Your task to perform on an android device: find photos in the google photos app Image 0: 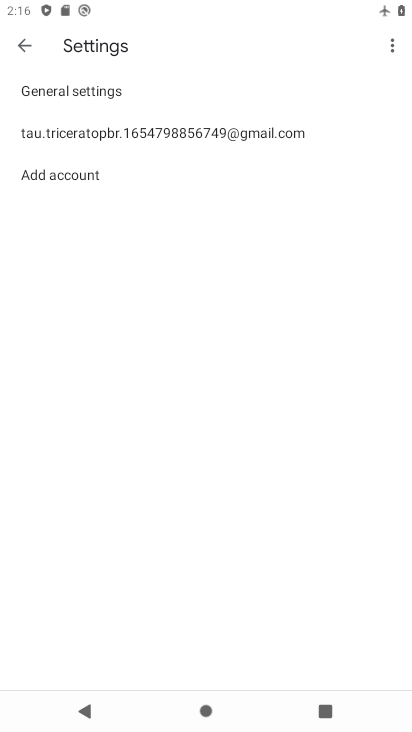
Step 0: press back button
Your task to perform on an android device: find photos in the google photos app Image 1: 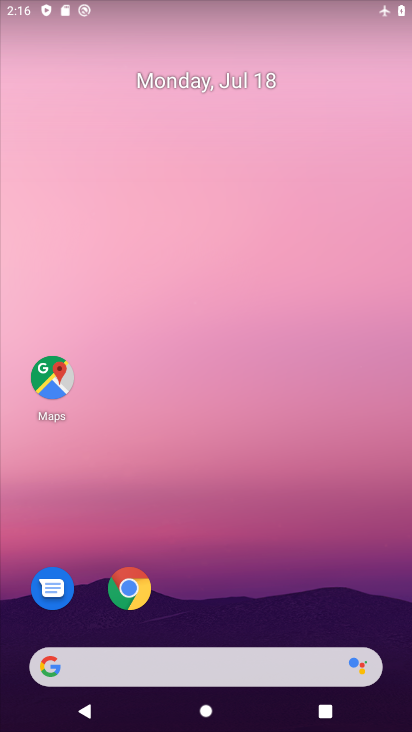
Step 1: drag from (184, 500) to (212, 0)
Your task to perform on an android device: find photos in the google photos app Image 2: 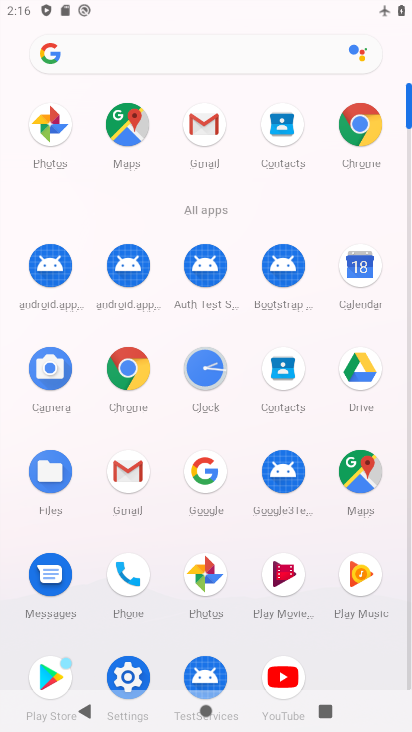
Step 2: click (201, 573)
Your task to perform on an android device: find photos in the google photos app Image 3: 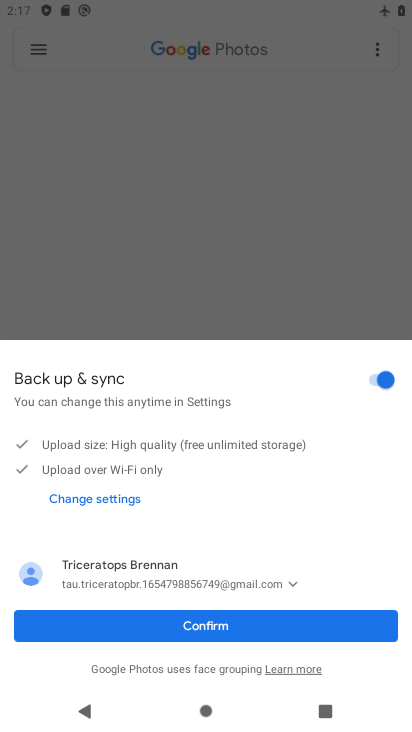
Step 3: click (183, 626)
Your task to perform on an android device: find photos in the google photos app Image 4: 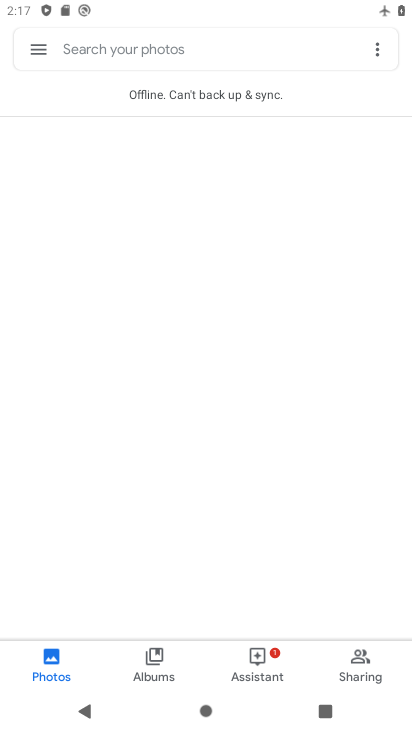
Step 4: task complete